Your task to perform on an android device: Go to ESPN.com Image 0: 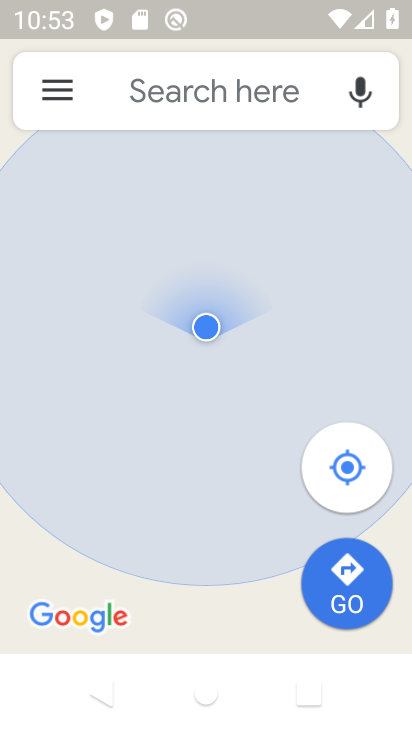
Step 0: press home button
Your task to perform on an android device: Go to ESPN.com Image 1: 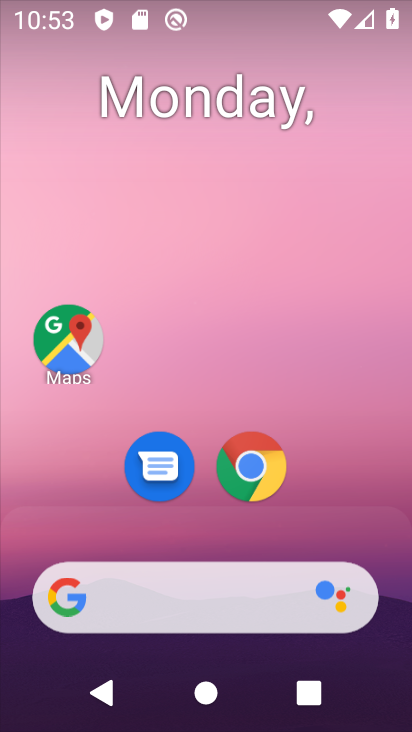
Step 1: click (261, 467)
Your task to perform on an android device: Go to ESPN.com Image 2: 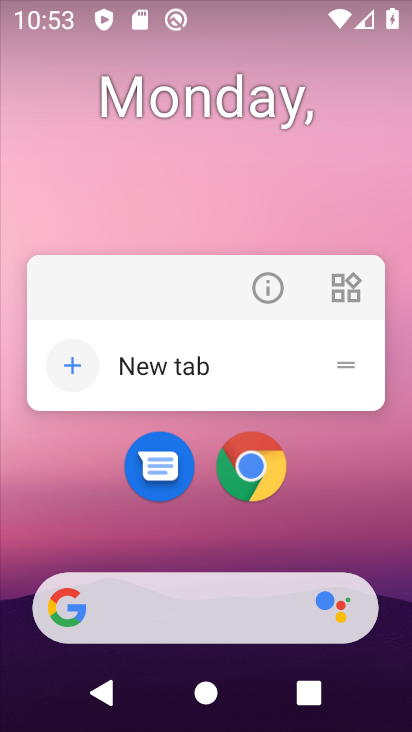
Step 2: click (249, 493)
Your task to perform on an android device: Go to ESPN.com Image 3: 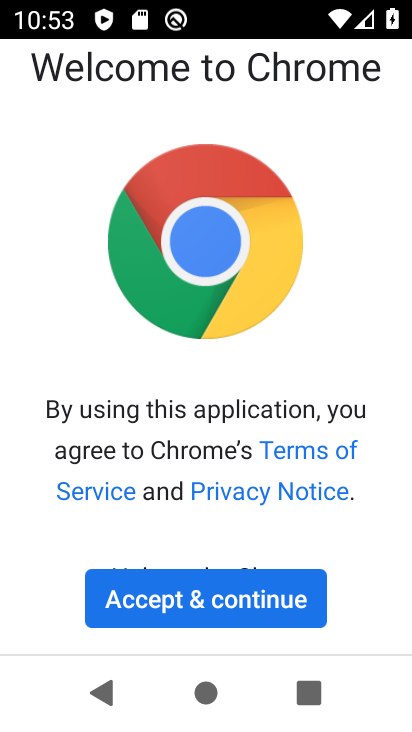
Step 3: click (231, 608)
Your task to perform on an android device: Go to ESPN.com Image 4: 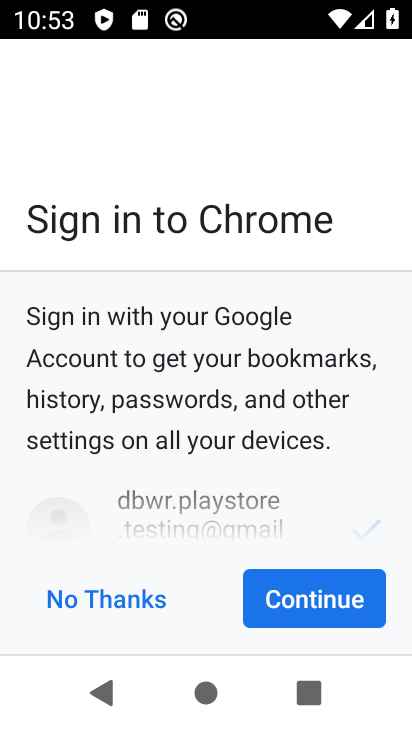
Step 4: click (282, 605)
Your task to perform on an android device: Go to ESPN.com Image 5: 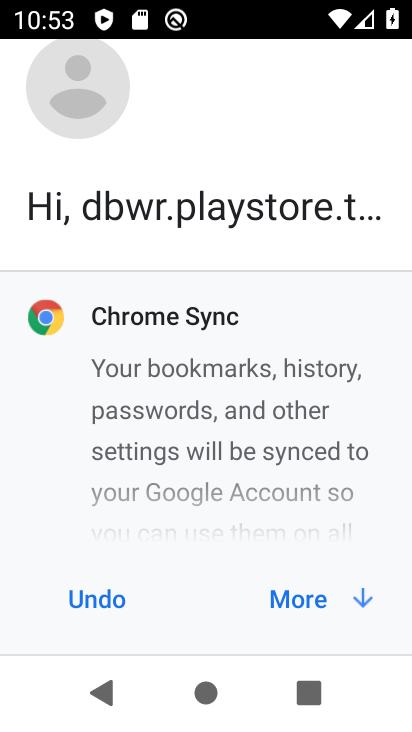
Step 5: click (282, 605)
Your task to perform on an android device: Go to ESPN.com Image 6: 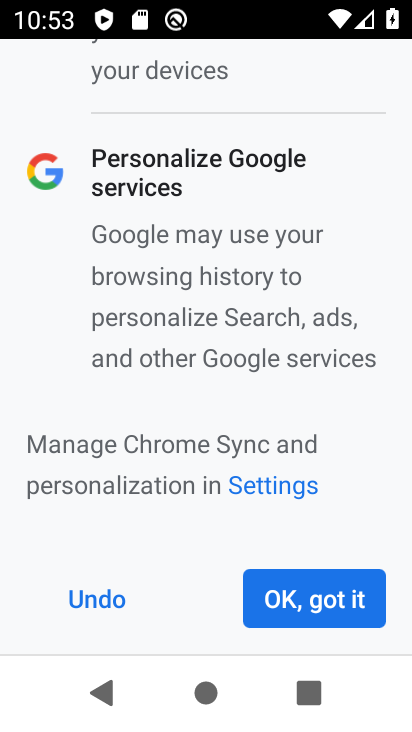
Step 6: click (282, 605)
Your task to perform on an android device: Go to ESPN.com Image 7: 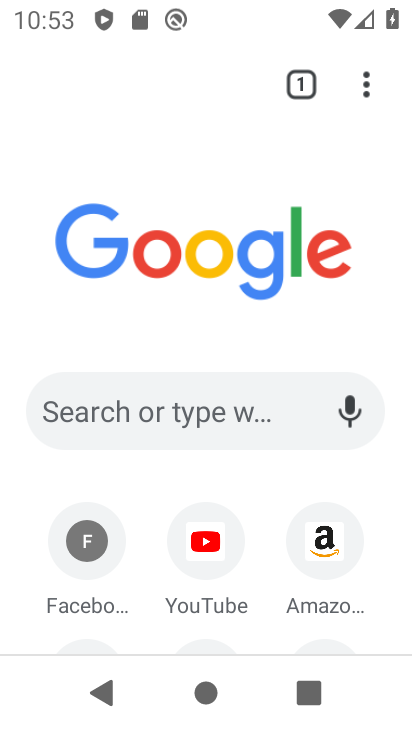
Step 7: drag from (266, 487) to (238, 280)
Your task to perform on an android device: Go to ESPN.com Image 8: 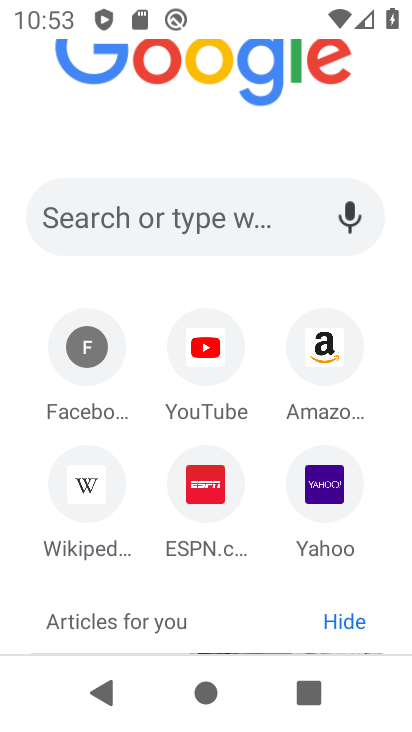
Step 8: click (226, 473)
Your task to perform on an android device: Go to ESPN.com Image 9: 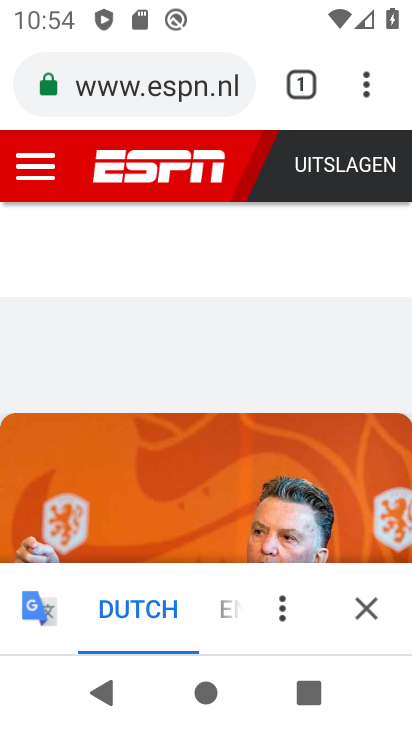
Step 9: task complete